Your task to perform on an android device: open app "HBO Max: Stream TV & Movies" (install if not already installed) and go to login screen Image 0: 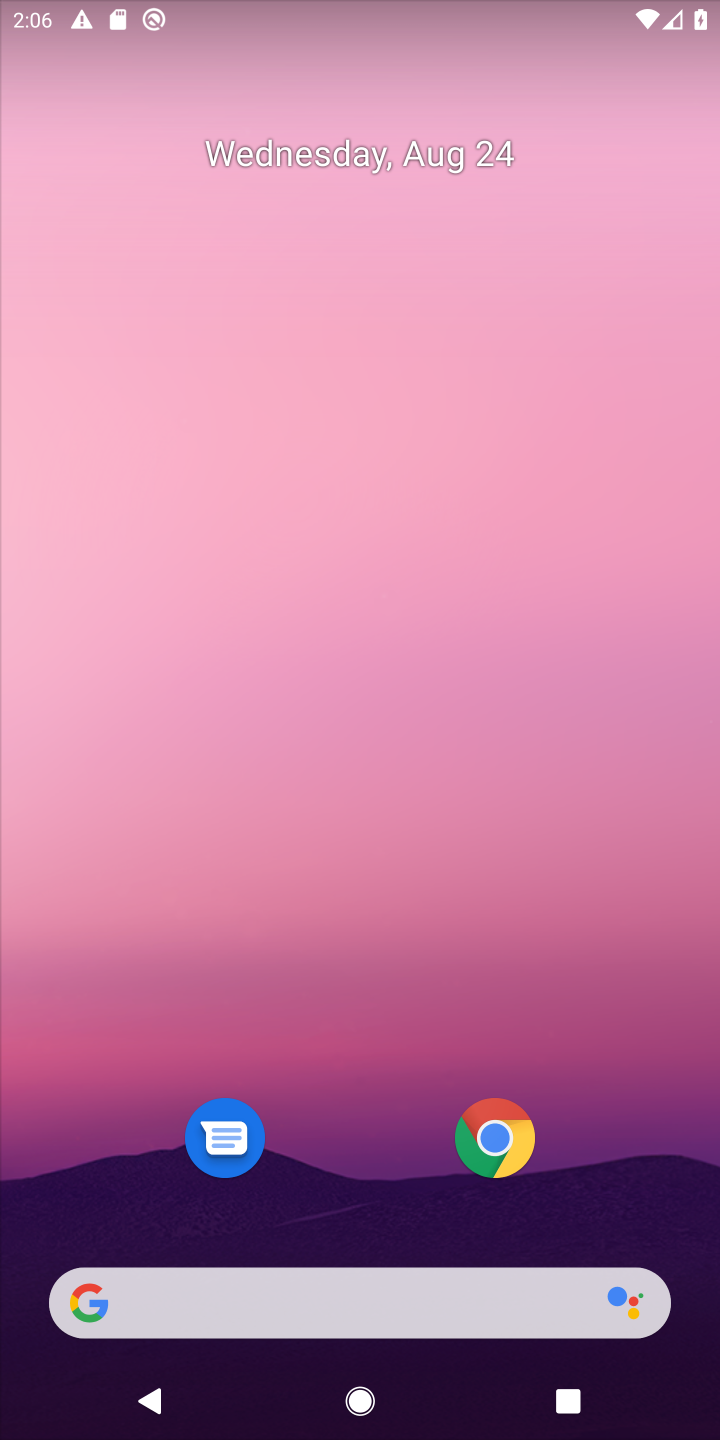
Step 0: drag from (356, 885) to (356, 55)
Your task to perform on an android device: open app "HBO Max: Stream TV & Movies" (install if not already installed) and go to login screen Image 1: 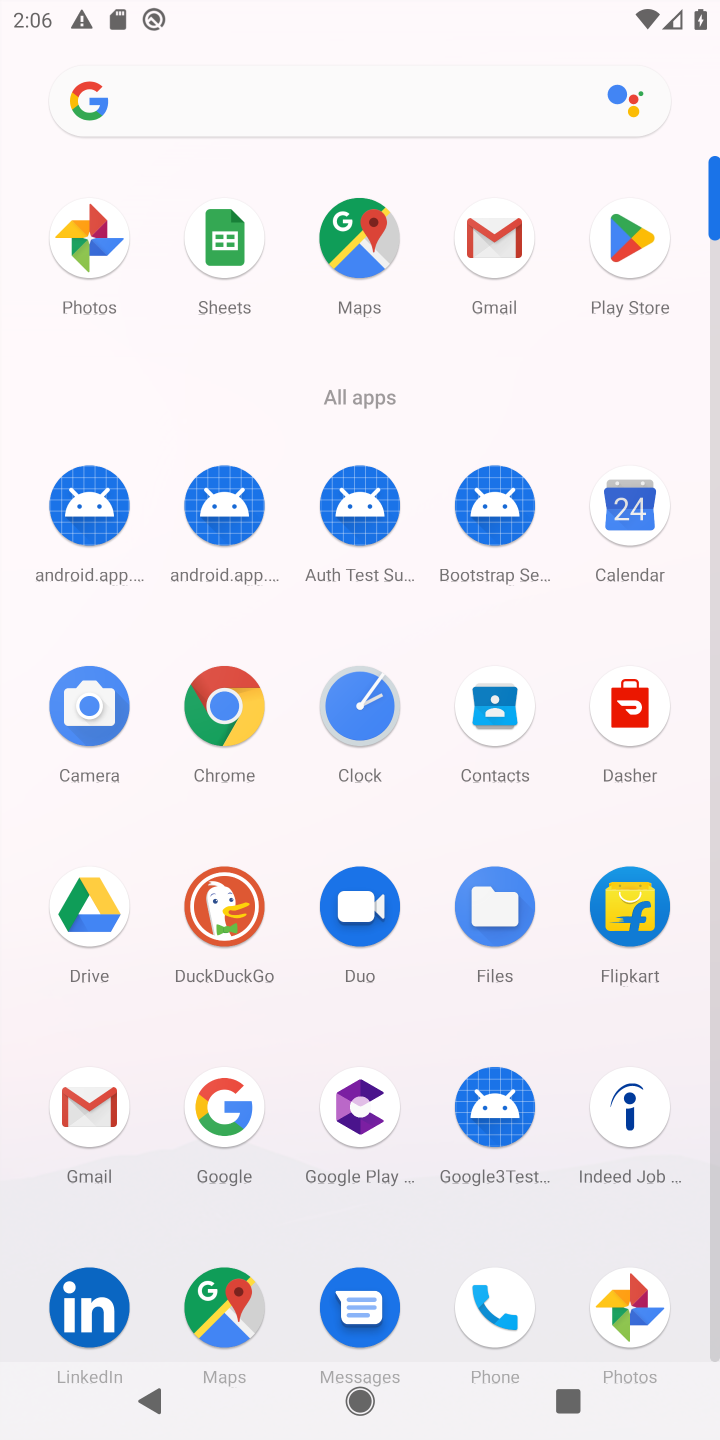
Step 1: click (639, 225)
Your task to perform on an android device: open app "HBO Max: Stream TV & Movies" (install if not already installed) and go to login screen Image 2: 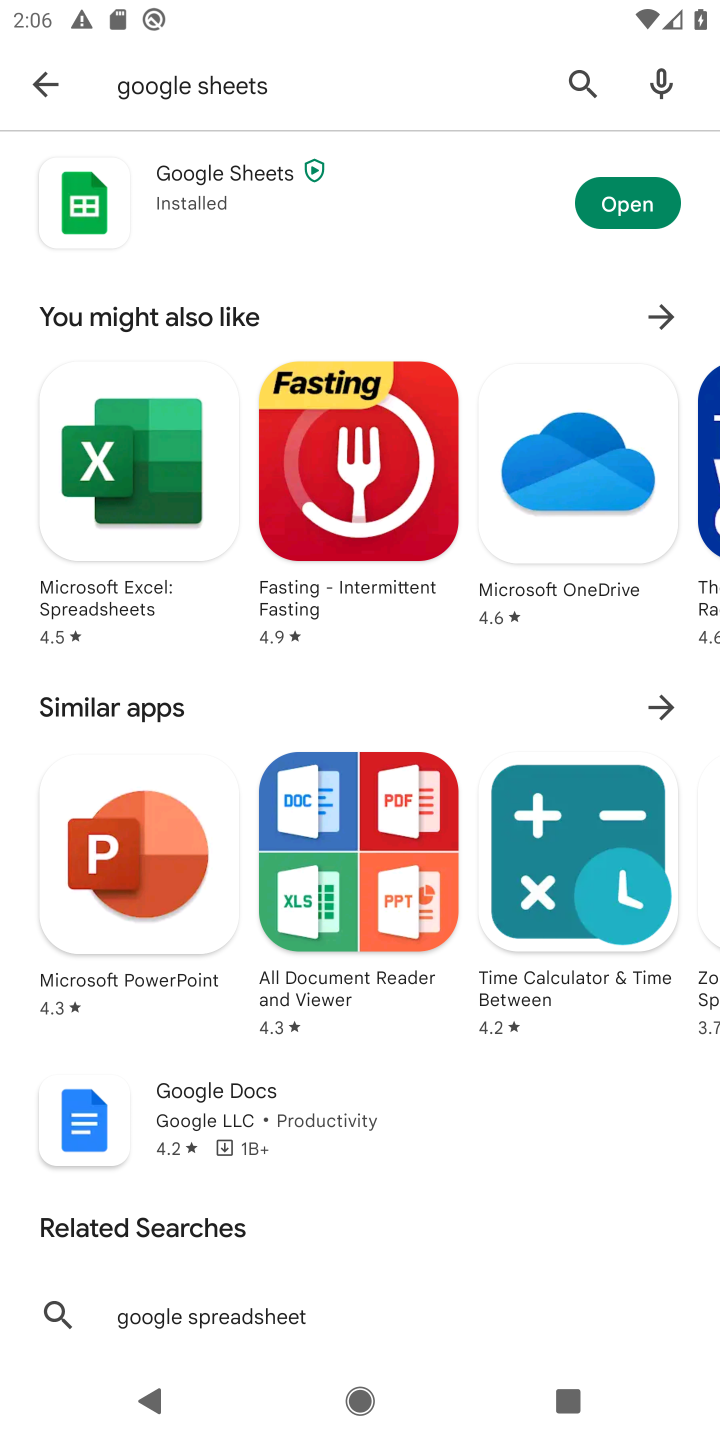
Step 2: click (574, 80)
Your task to perform on an android device: open app "HBO Max: Stream TV & Movies" (install if not already installed) and go to login screen Image 3: 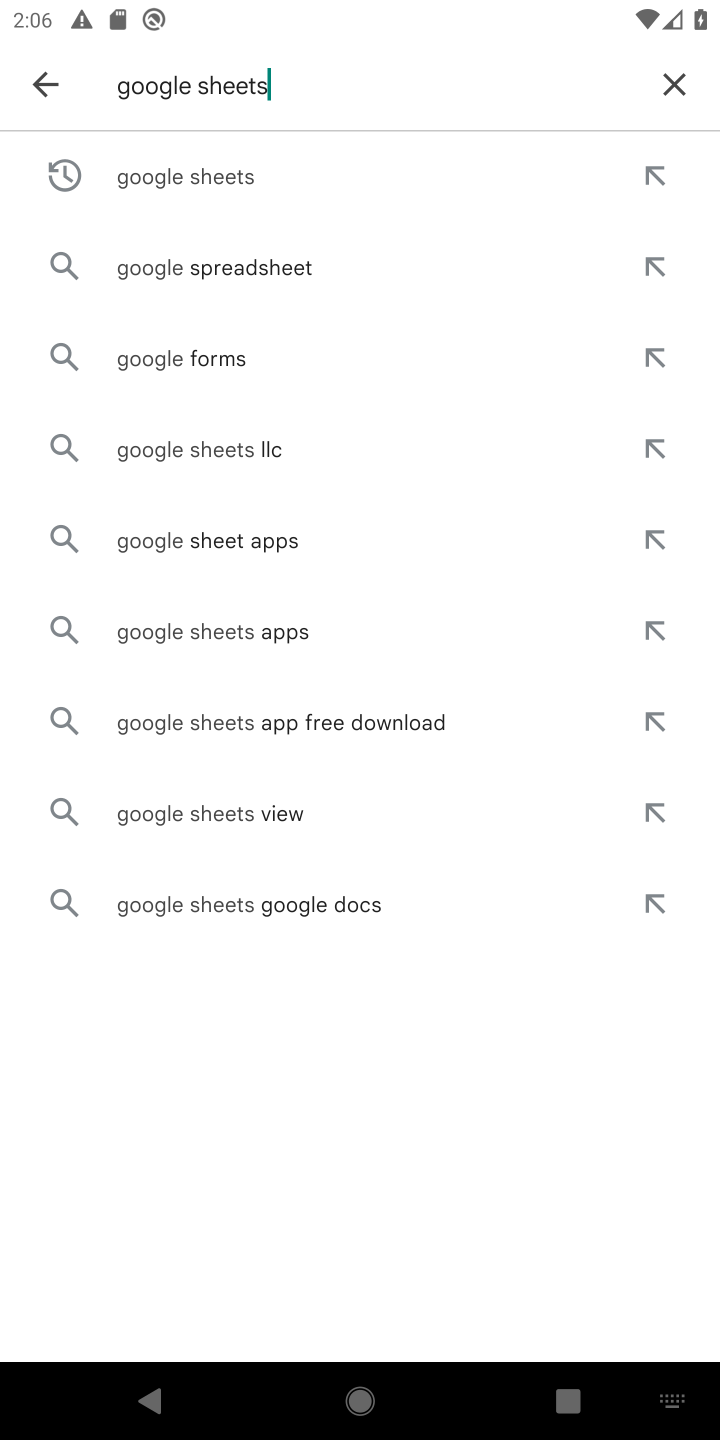
Step 3: click (668, 80)
Your task to perform on an android device: open app "HBO Max: Stream TV & Movies" (install if not already installed) and go to login screen Image 4: 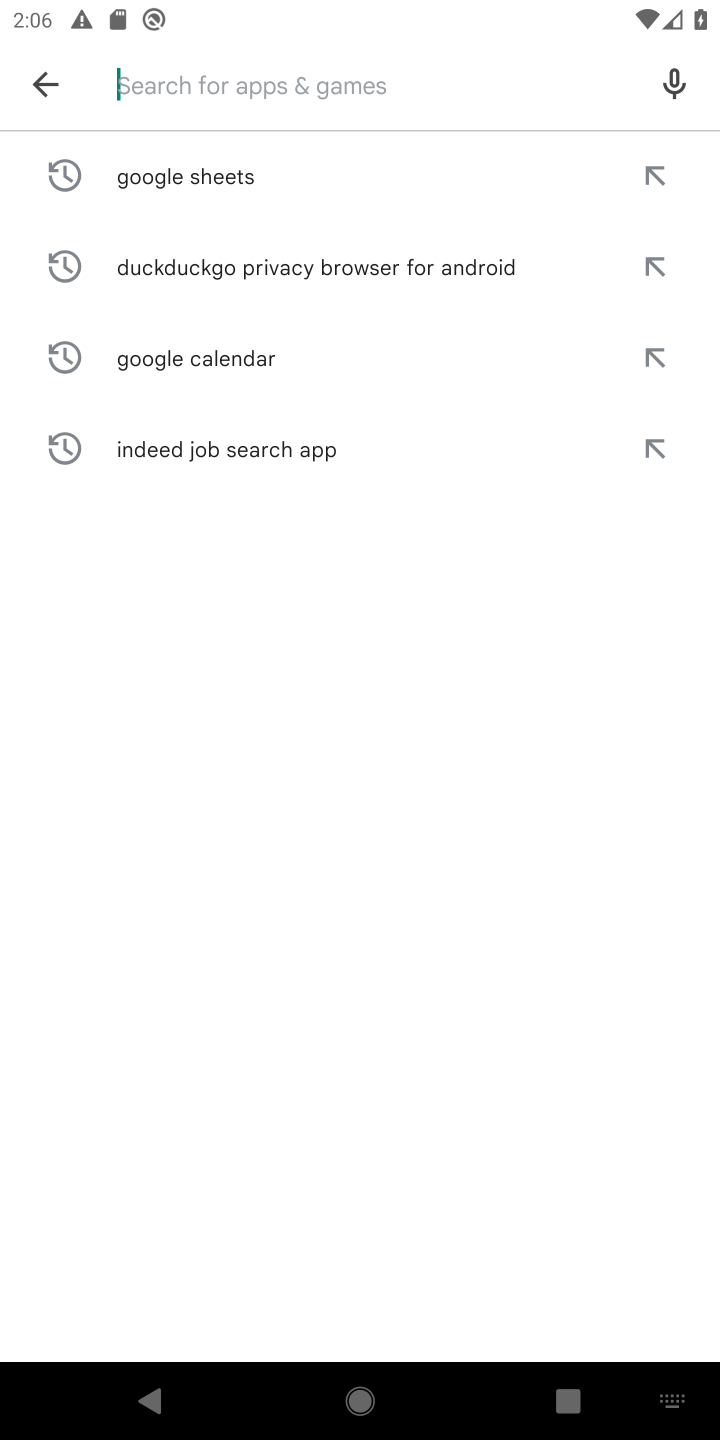
Step 4: type "HBO Max: Stream TV & Movies"
Your task to perform on an android device: open app "HBO Max: Stream TV & Movies" (install if not already installed) and go to login screen Image 5: 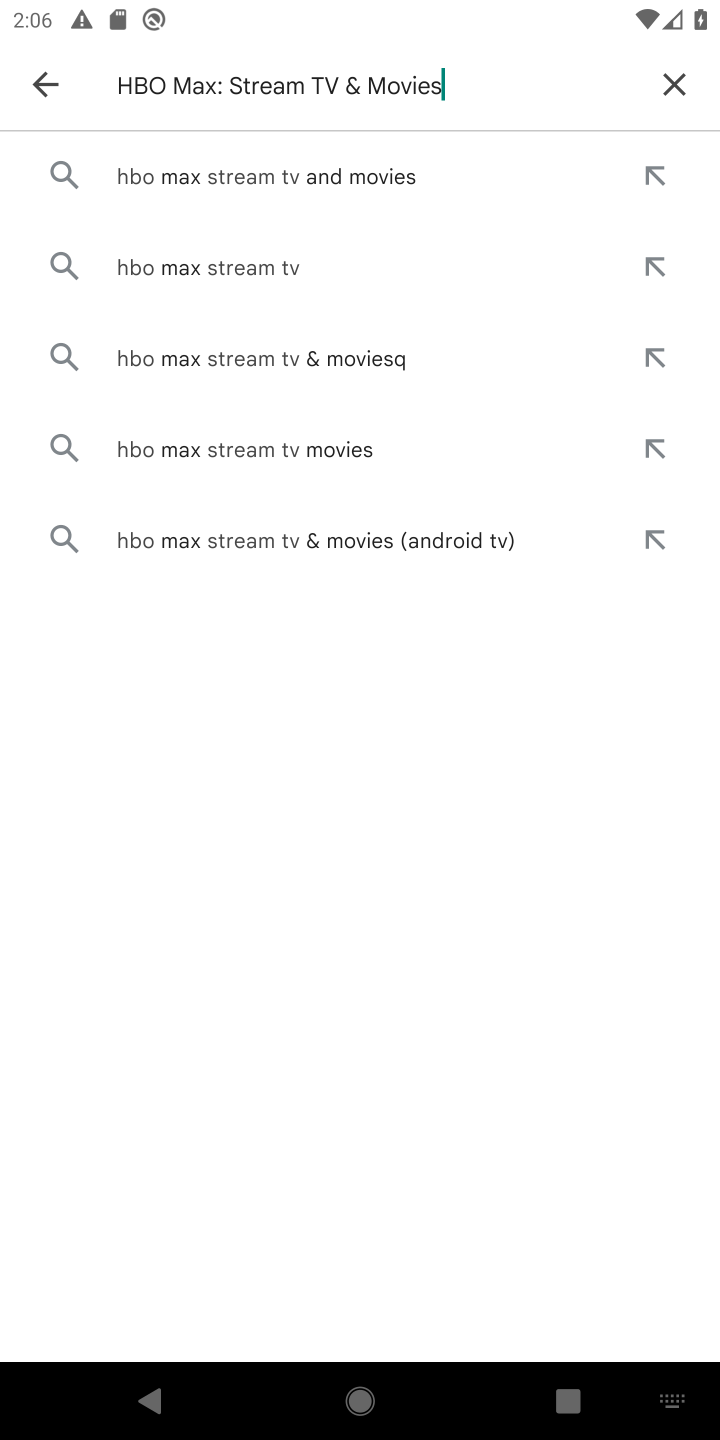
Step 5: type ""
Your task to perform on an android device: open app "HBO Max: Stream TV & Movies" (install if not already installed) and go to login screen Image 6: 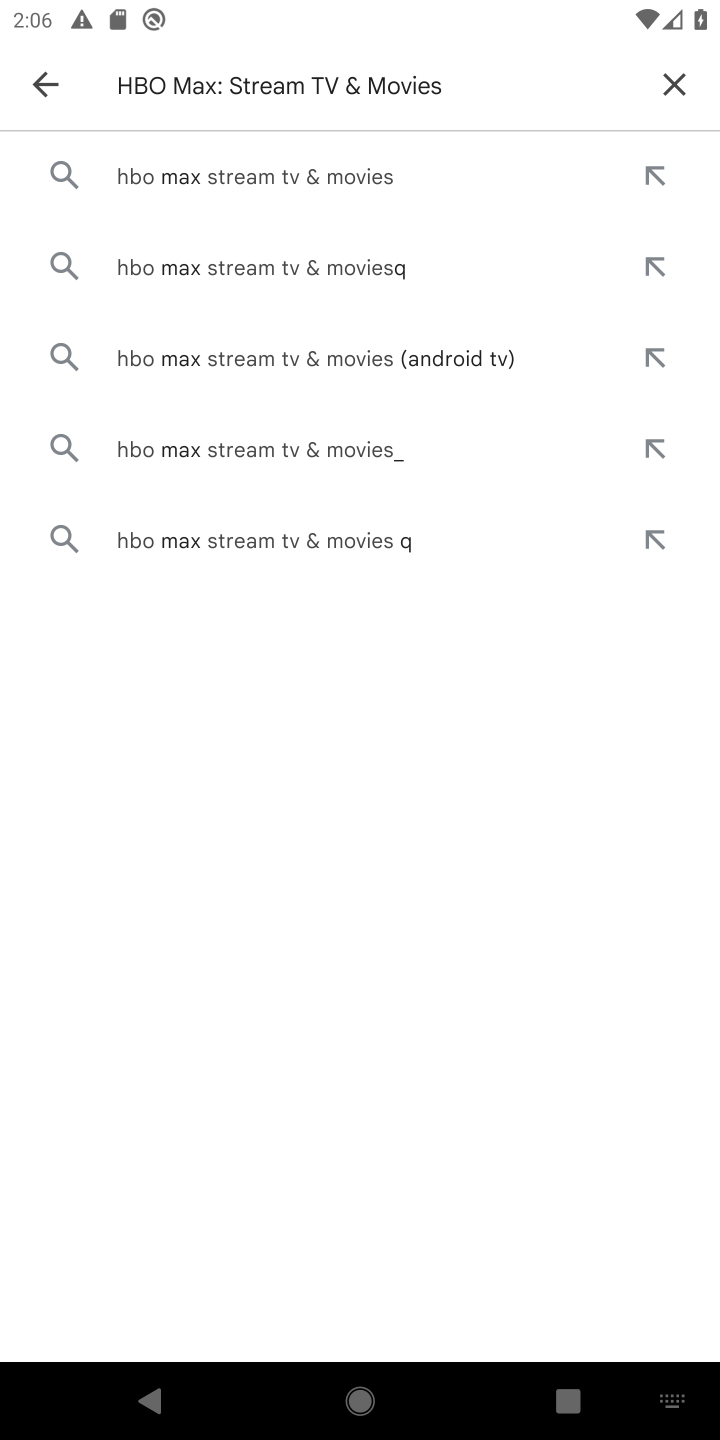
Step 6: click (274, 166)
Your task to perform on an android device: open app "HBO Max: Stream TV & Movies" (install if not already installed) and go to login screen Image 7: 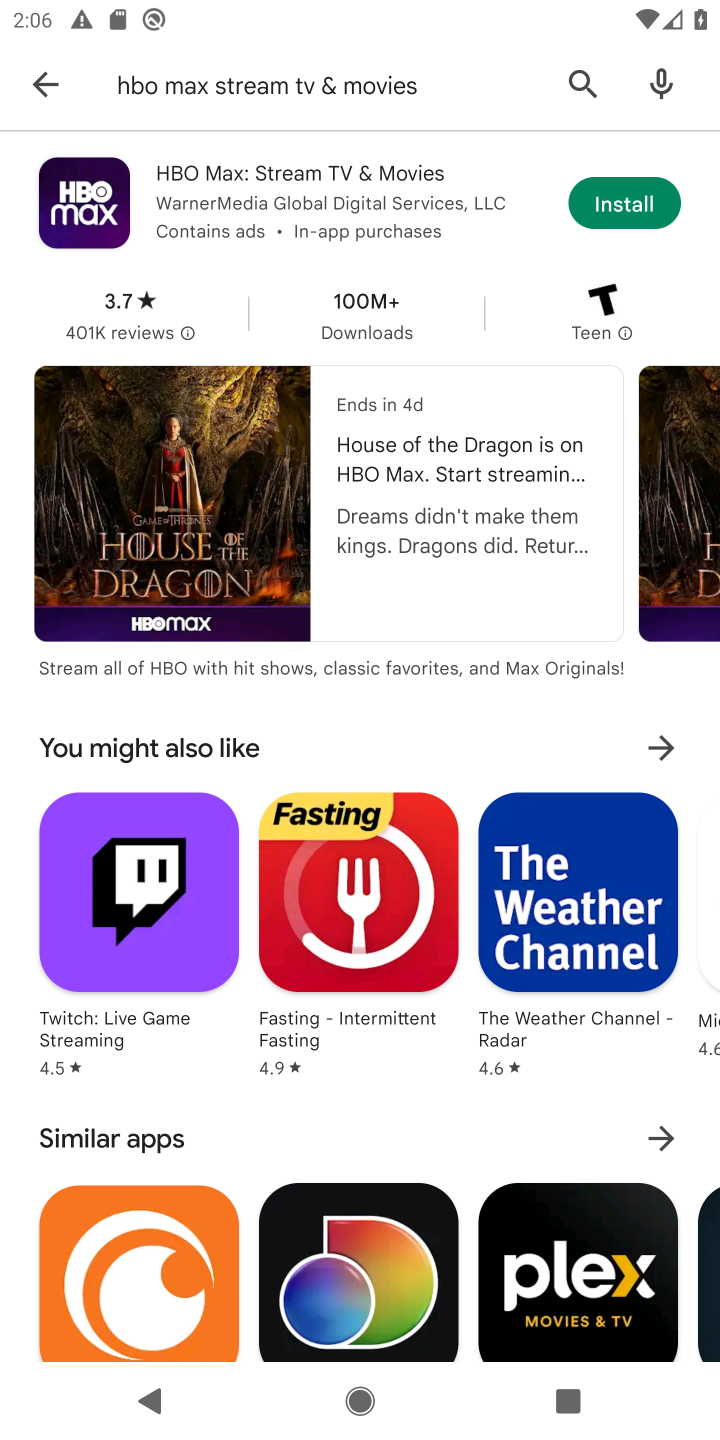
Step 7: click (623, 213)
Your task to perform on an android device: open app "HBO Max: Stream TV & Movies" (install if not already installed) and go to login screen Image 8: 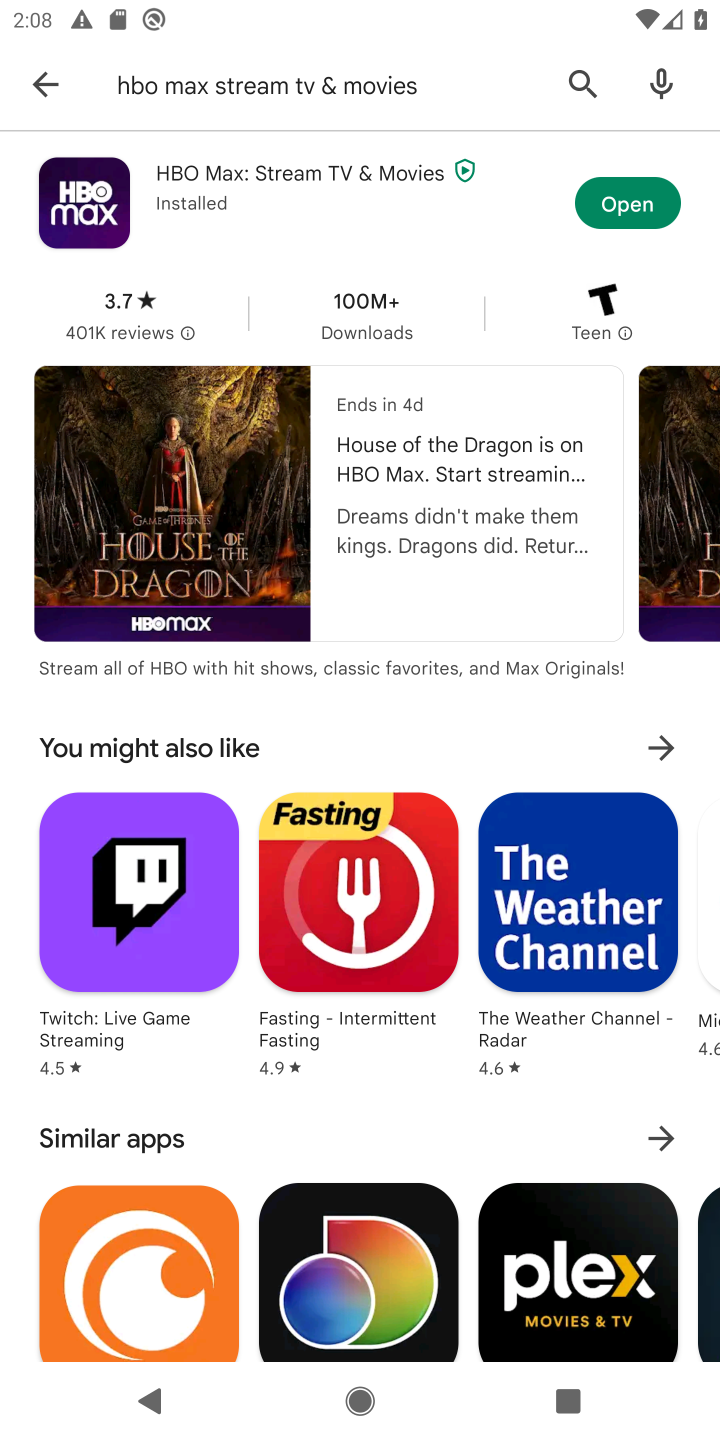
Step 8: click (635, 192)
Your task to perform on an android device: open app "HBO Max: Stream TV & Movies" (install if not already installed) and go to login screen Image 9: 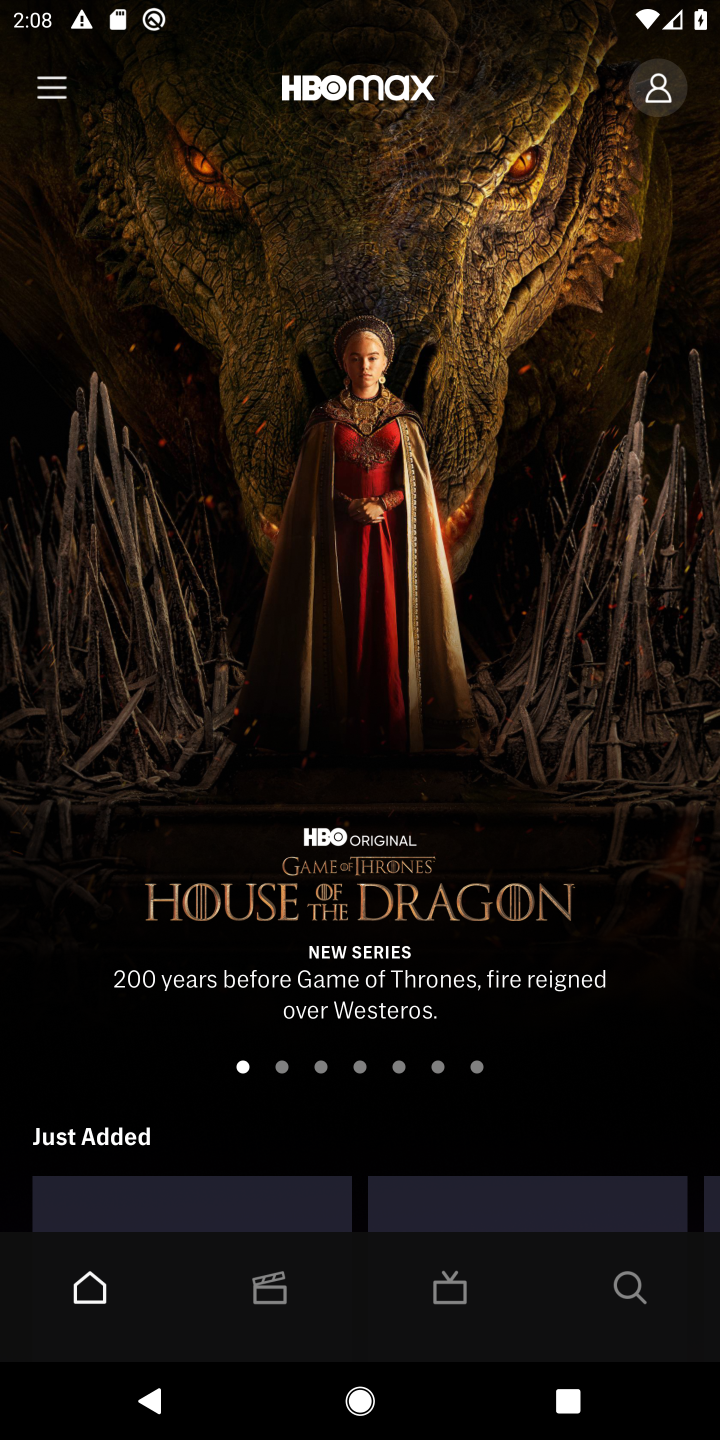
Step 9: click (660, 84)
Your task to perform on an android device: open app "HBO Max: Stream TV & Movies" (install if not already installed) and go to login screen Image 10: 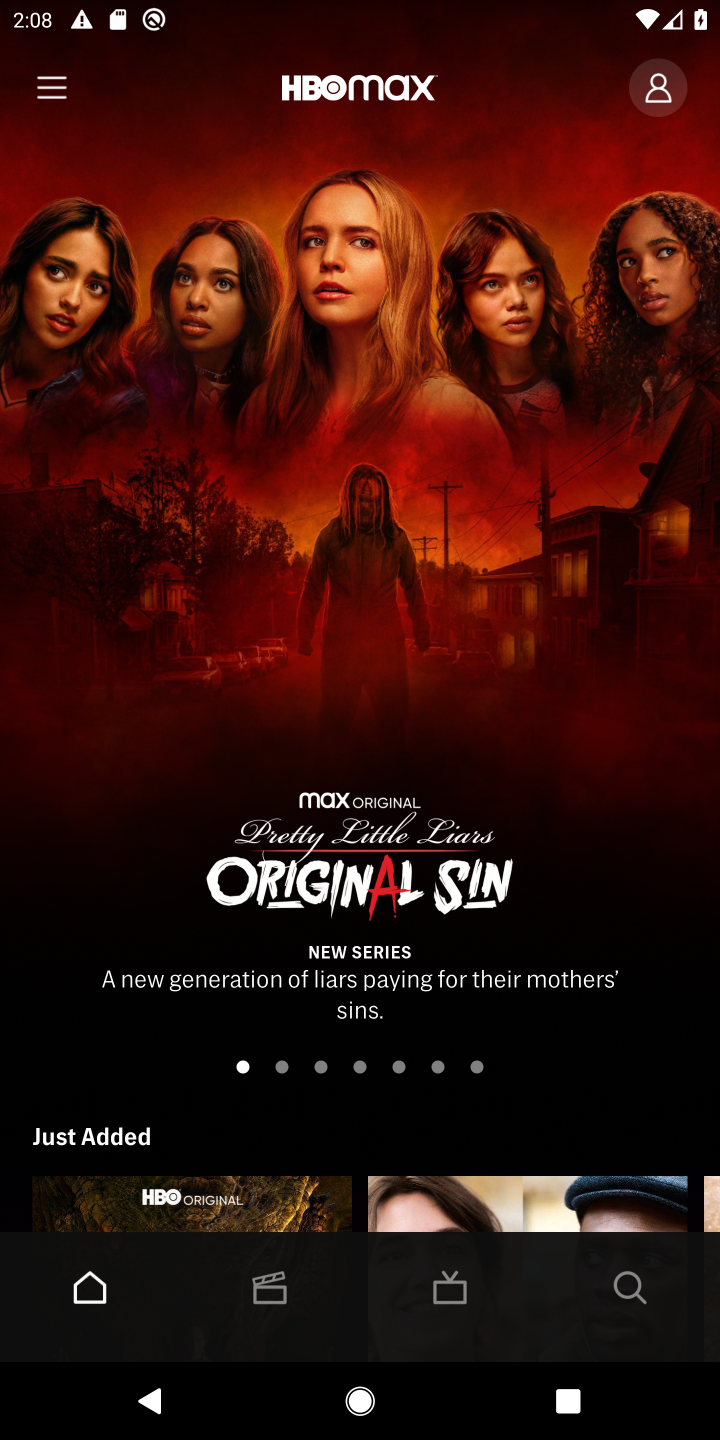
Step 10: click (654, 87)
Your task to perform on an android device: open app "HBO Max: Stream TV & Movies" (install if not already installed) and go to login screen Image 11: 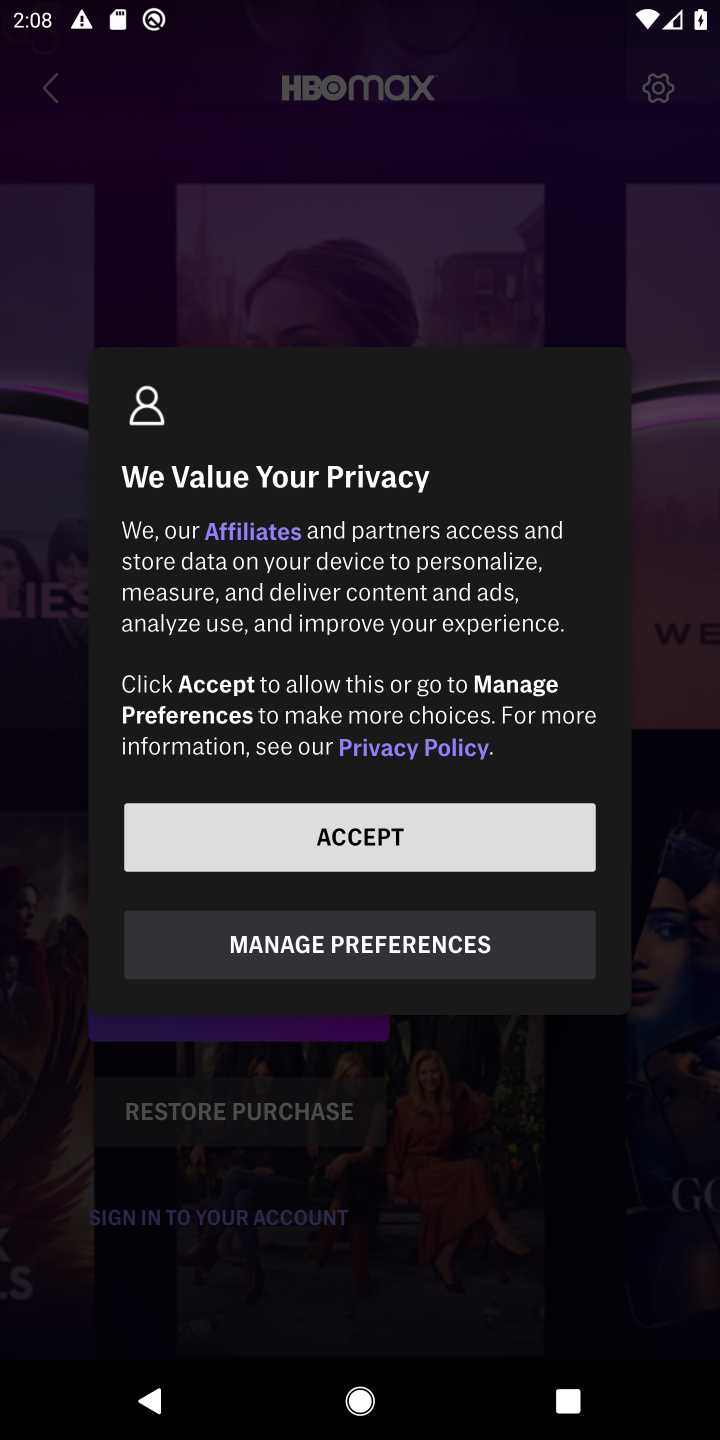
Step 11: click (402, 852)
Your task to perform on an android device: open app "HBO Max: Stream TV & Movies" (install if not already installed) and go to login screen Image 12: 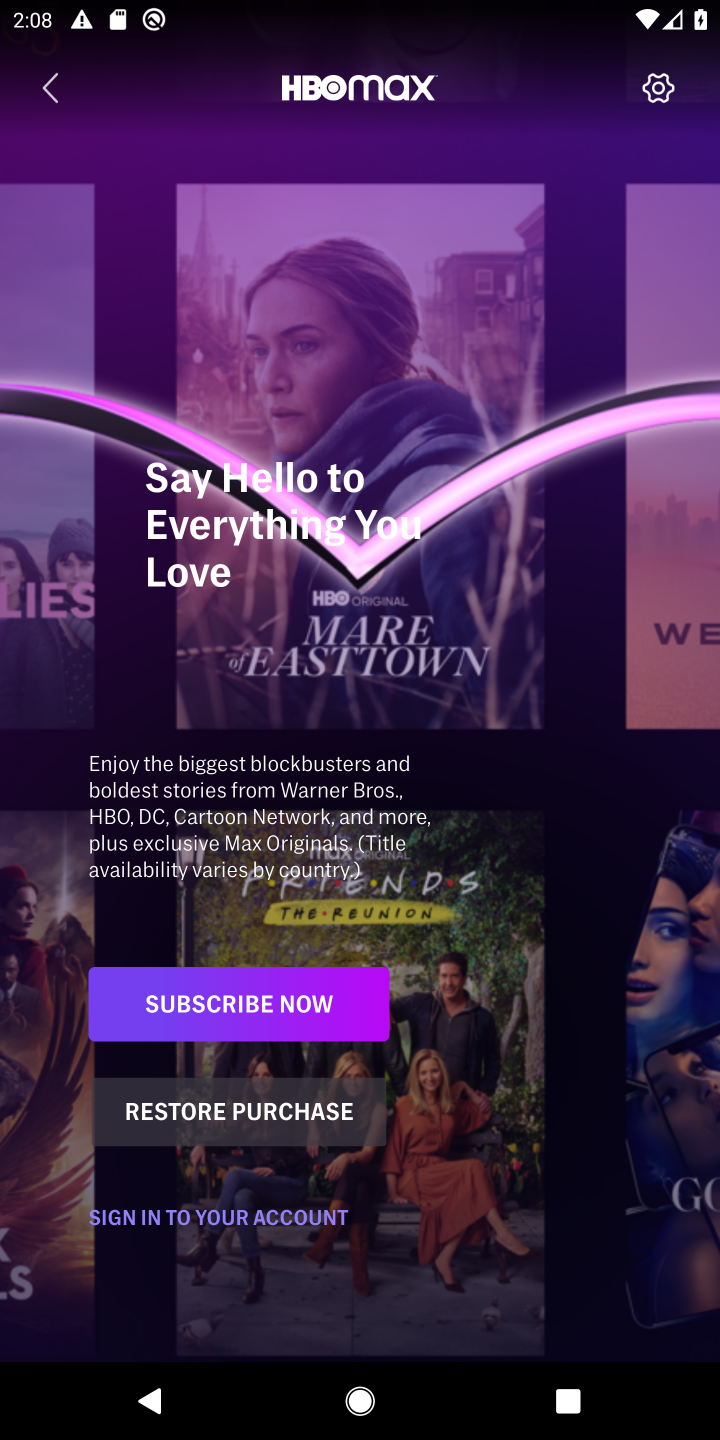
Step 12: task complete